Your task to perform on an android device: Do I have any events today? Image 0: 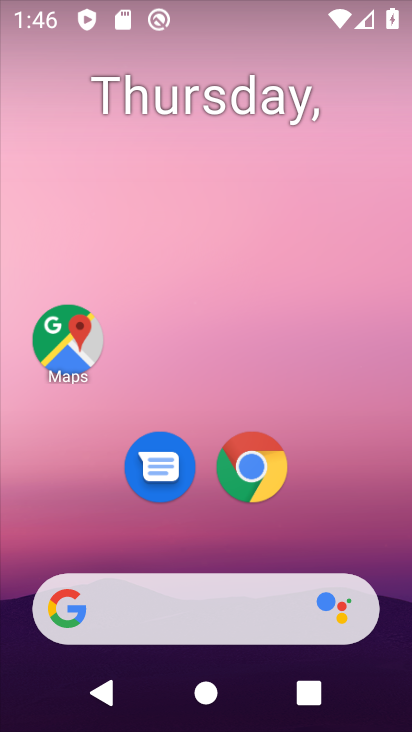
Step 0: drag from (351, 531) to (286, 150)
Your task to perform on an android device: Do I have any events today? Image 1: 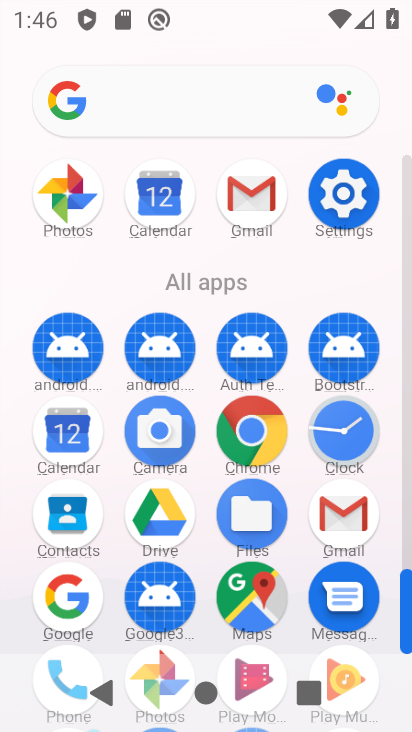
Step 1: click (75, 424)
Your task to perform on an android device: Do I have any events today? Image 2: 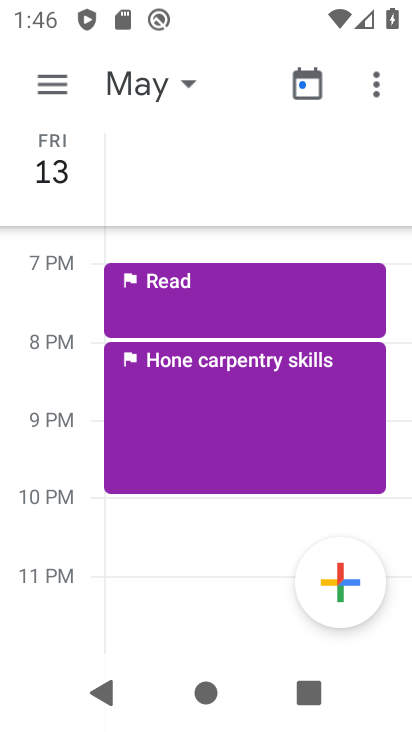
Step 2: click (166, 77)
Your task to perform on an android device: Do I have any events today? Image 3: 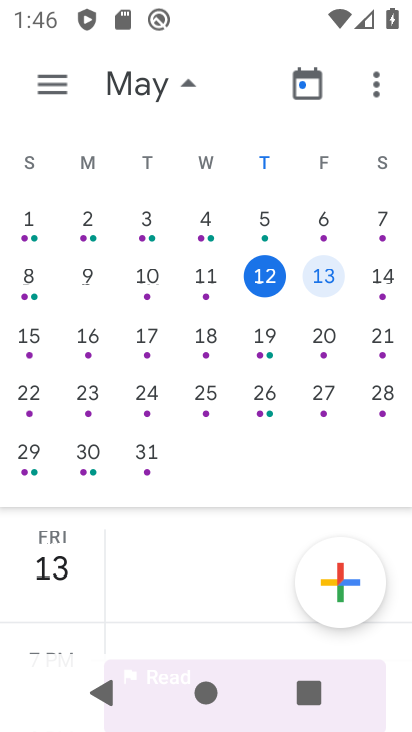
Step 3: click (270, 272)
Your task to perform on an android device: Do I have any events today? Image 4: 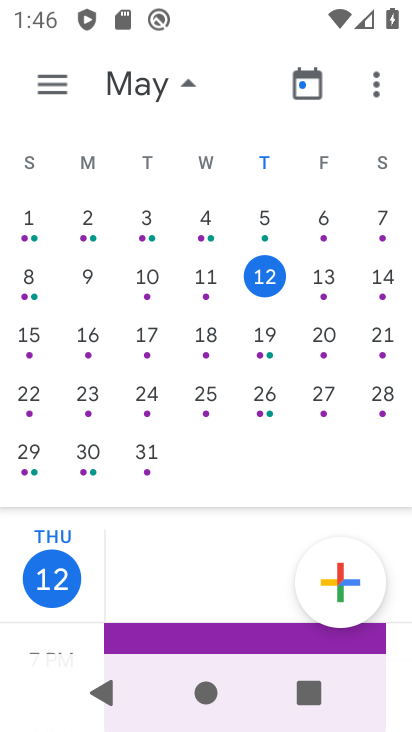
Step 4: task complete